Your task to perform on an android device: Search for Mexican restaurants on Maps Image 0: 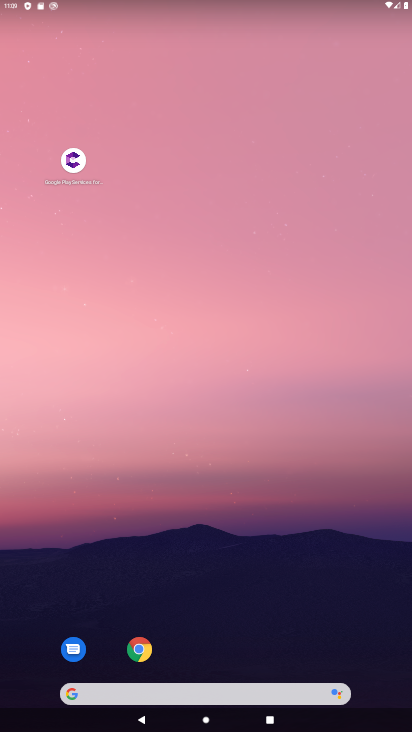
Step 0: drag from (259, 678) to (292, 97)
Your task to perform on an android device: Search for Mexican restaurants on Maps Image 1: 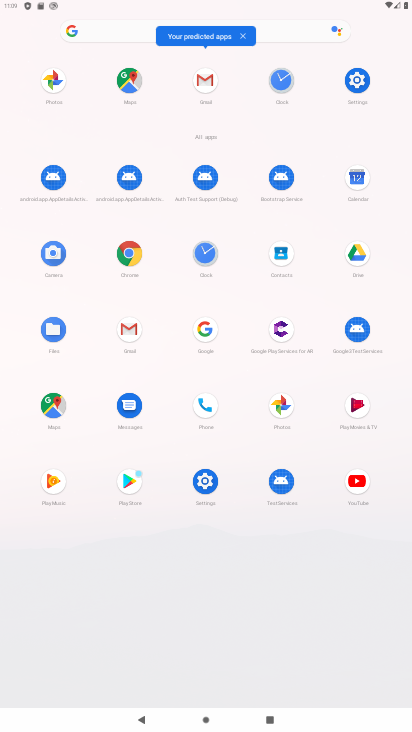
Step 1: click (76, 412)
Your task to perform on an android device: Search for Mexican restaurants on Maps Image 2: 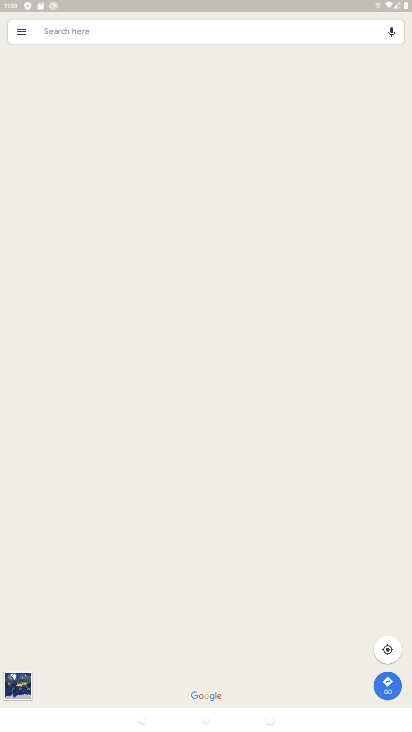
Step 2: click (176, 28)
Your task to perform on an android device: Search for Mexican restaurants on Maps Image 3: 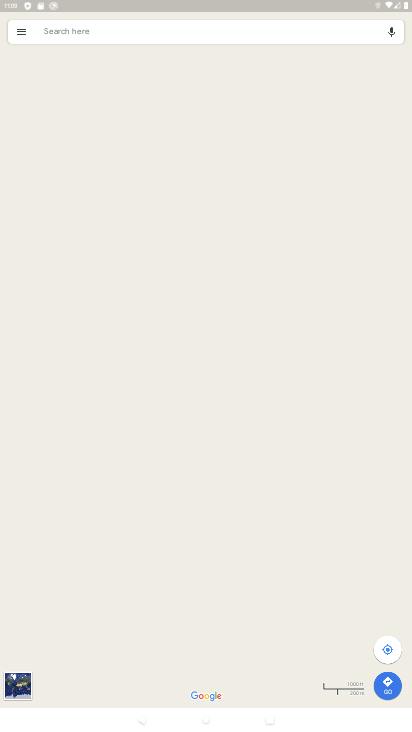
Step 3: click (176, 28)
Your task to perform on an android device: Search for Mexican restaurants on Maps Image 4: 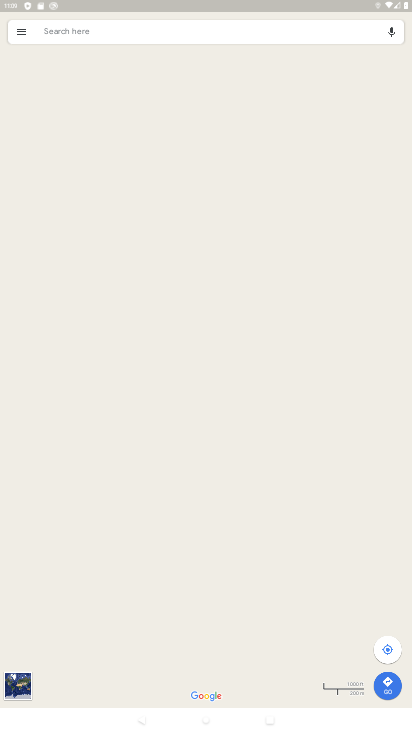
Step 4: click (176, 28)
Your task to perform on an android device: Search for Mexican restaurants on Maps Image 5: 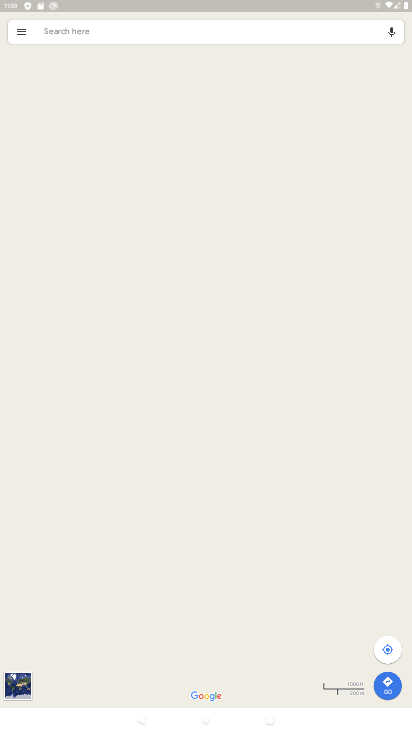
Step 5: click (176, 28)
Your task to perform on an android device: Search for Mexican restaurants on Maps Image 6: 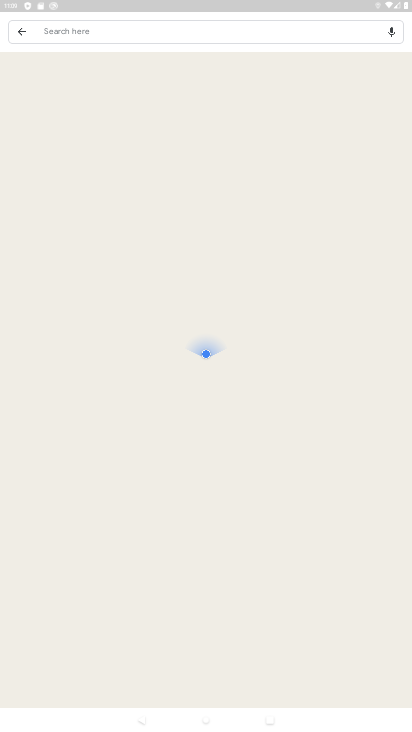
Step 6: click (176, 28)
Your task to perform on an android device: Search for Mexican restaurants on Maps Image 7: 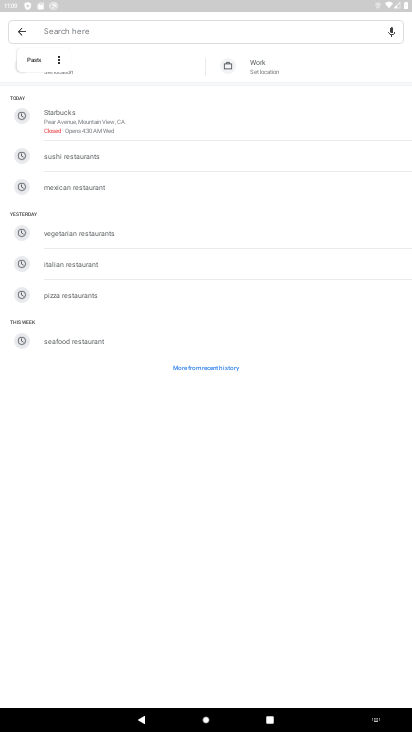
Step 7: type "Mexican restaurants"
Your task to perform on an android device: Search for Mexican restaurants on Maps Image 8: 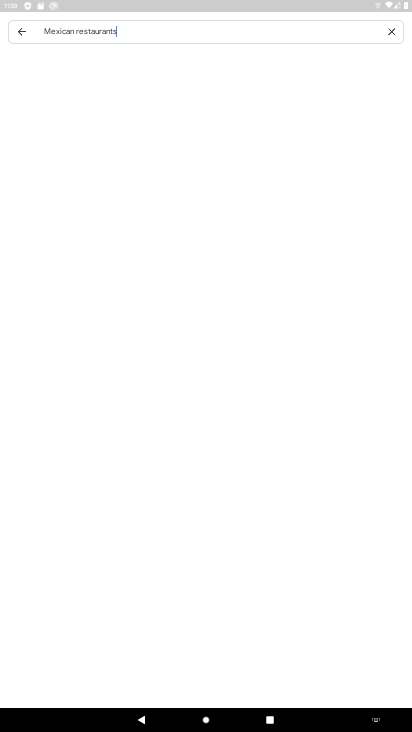
Step 8: type ""
Your task to perform on an android device: Search for Mexican restaurants on Maps Image 9: 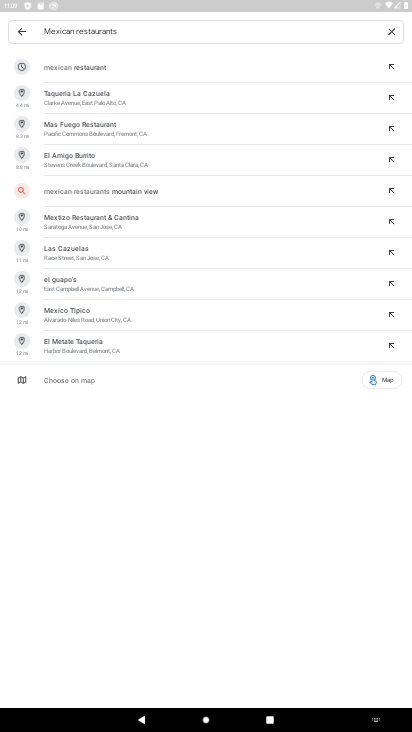
Step 9: click (49, 62)
Your task to perform on an android device: Search for Mexican restaurants on Maps Image 10: 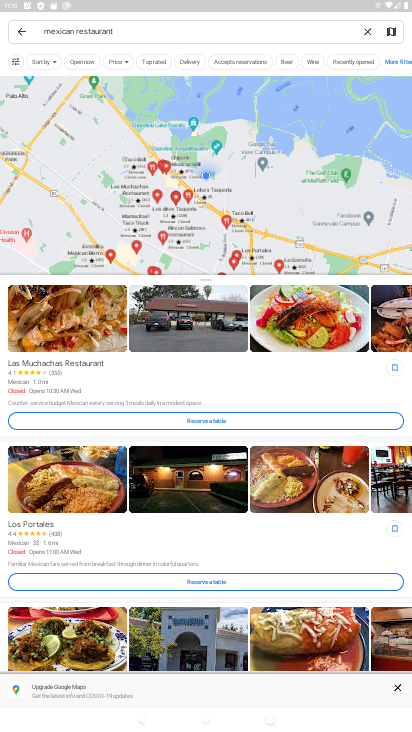
Step 10: task complete